Your task to perform on an android device: open the mobile data screen to see how much data has been used Image 0: 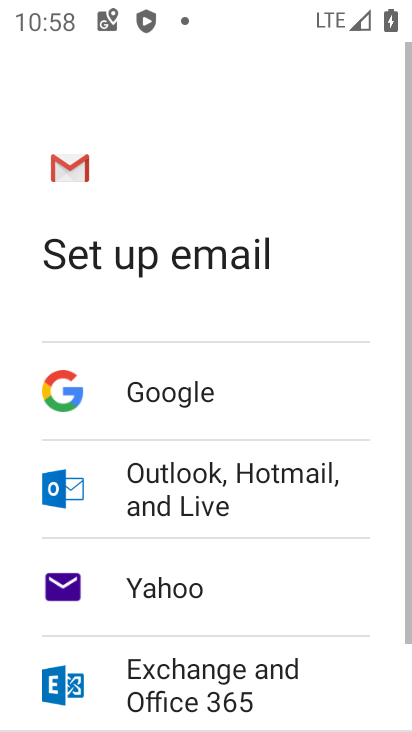
Step 0: press home button
Your task to perform on an android device: open the mobile data screen to see how much data has been used Image 1: 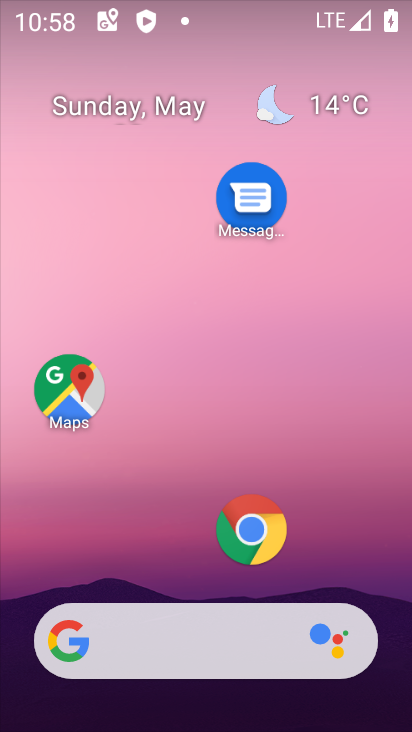
Step 1: drag from (160, 511) to (223, 0)
Your task to perform on an android device: open the mobile data screen to see how much data has been used Image 2: 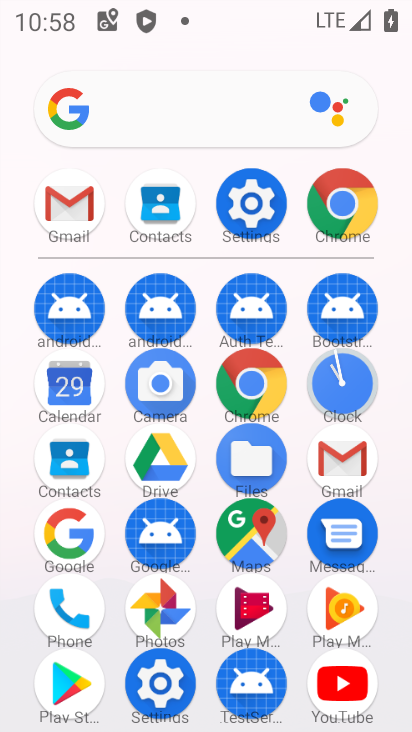
Step 2: click (268, 199)
Your task to perform on an android device: open the mobile data screen to see how much data has been used Image 3: 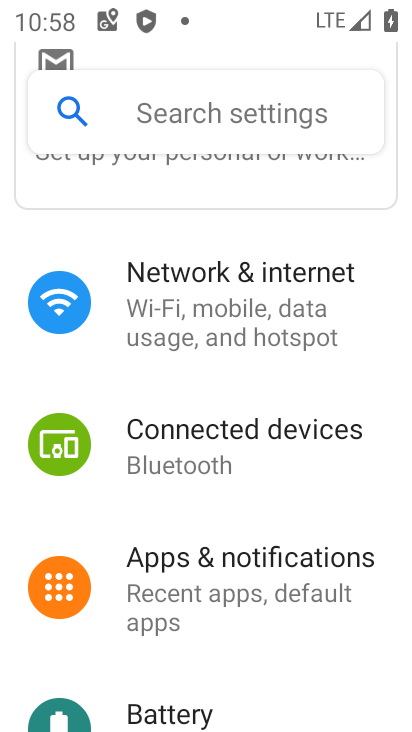
Step 3: click (224, 331)
Your task to perform on an android device: open the mobile data screen to see how much data has been used Image 4: 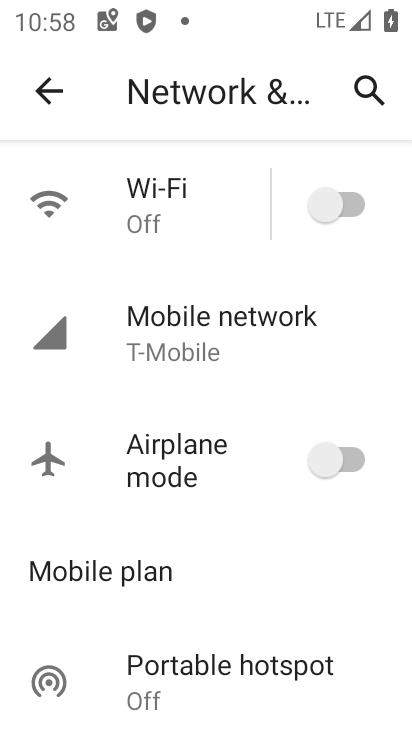
Step 4: click (210, 365)
Your task to perform on an android device: open the mobile data screen to see how much data has been used Image 5: 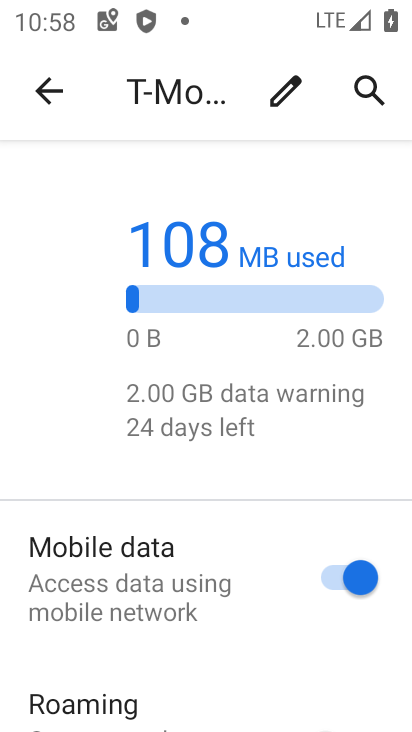
Step 5: drag from (203, 562) to (233, 165)
Your task to perform on an android device: open the mobile data screen to see how much data has been used Image 6: 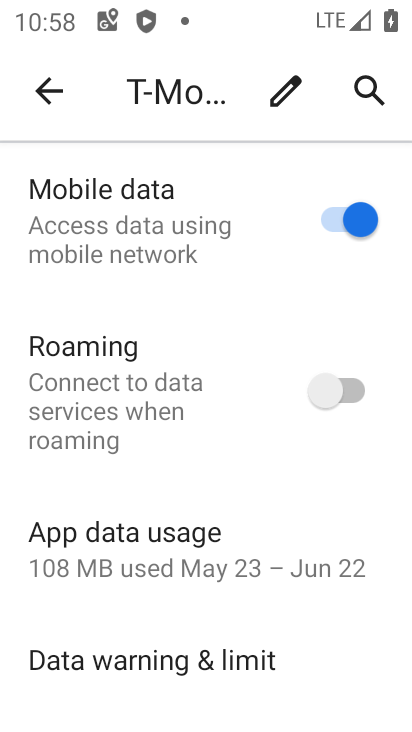
Step 6: click (194, 579)
Your task to perform on an android device: open the mobile data screen to see how much data has been used Image 7: 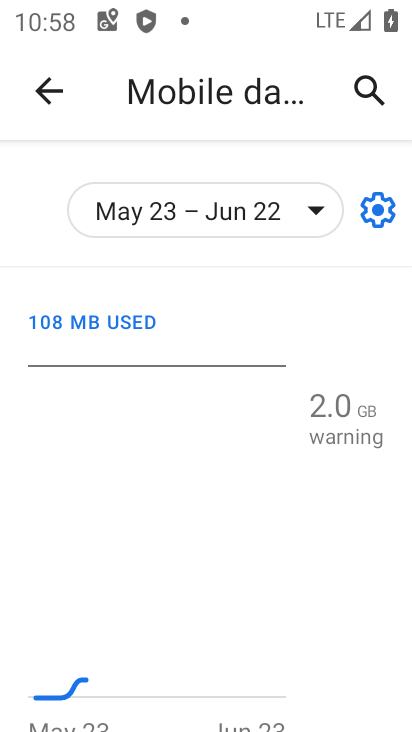
Step 7: task complete